Your task to perform on an android device: empty trash in google photos Image 0: 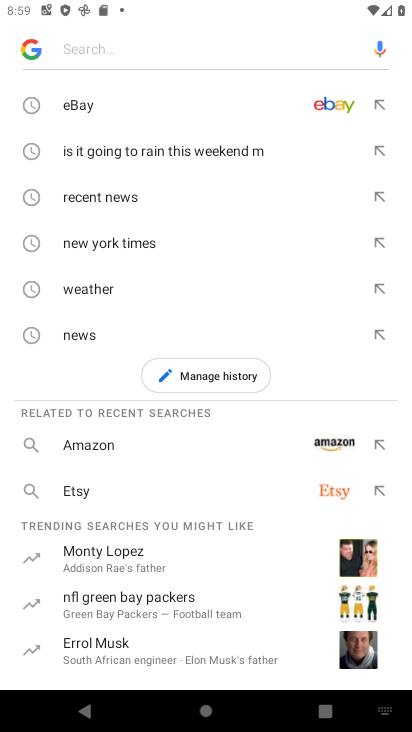
Step 0: press home button
Your task to perform on an android device: empty trash in google photos Image 1: 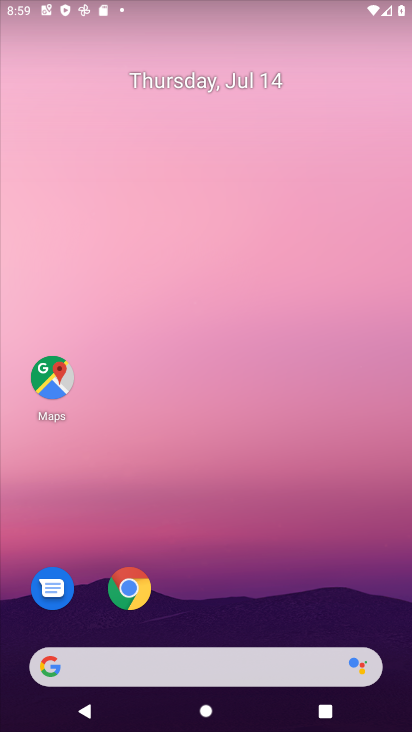
Step 1: drag from (209, 615) to (221, 82)
Your task to perform on an android device: empty trash in google photos Image 2: 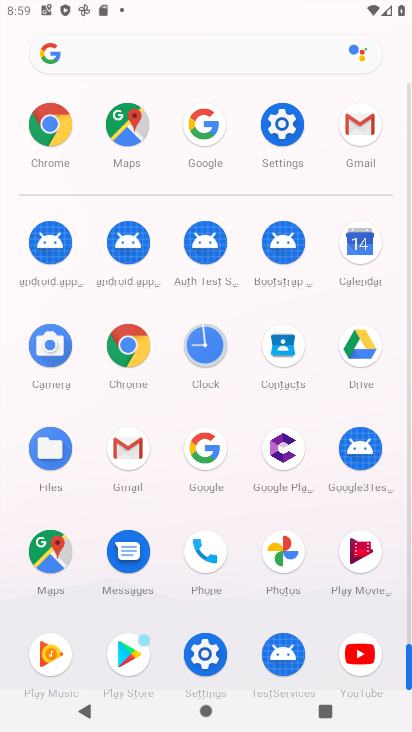
Step 2: click (291, 551)
Your task to perform on an android device: empty trash in google photos Image 3: 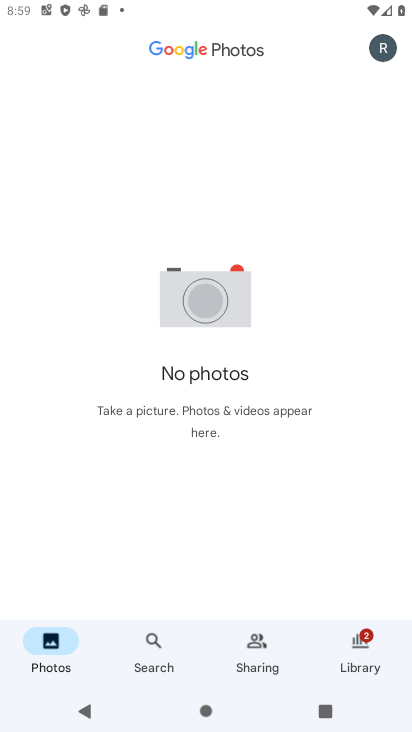
Step 3: click (381, 48)
Your task to perform on an android device: empty trash in google photos Image 4: 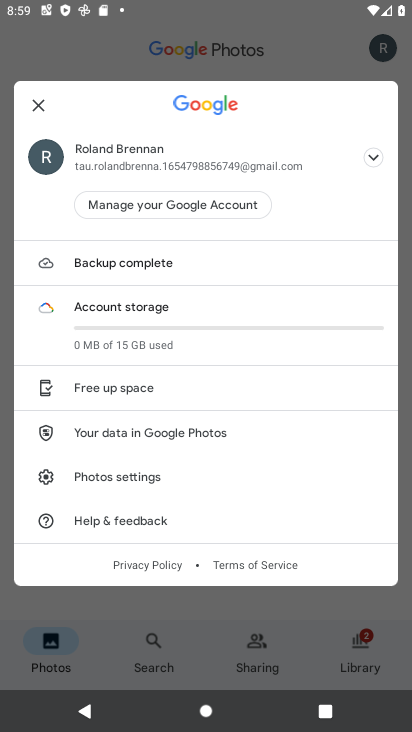
Step 4: click (276, 54)
Your task to perform on an android device: empty trash in google photos Image 5: 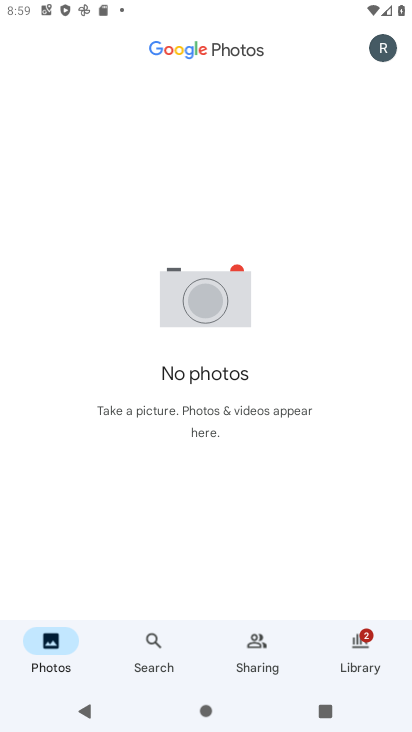
Step 5: click (368, 656)
Your task to perform on an android device: empty trash in google photos Image 6: 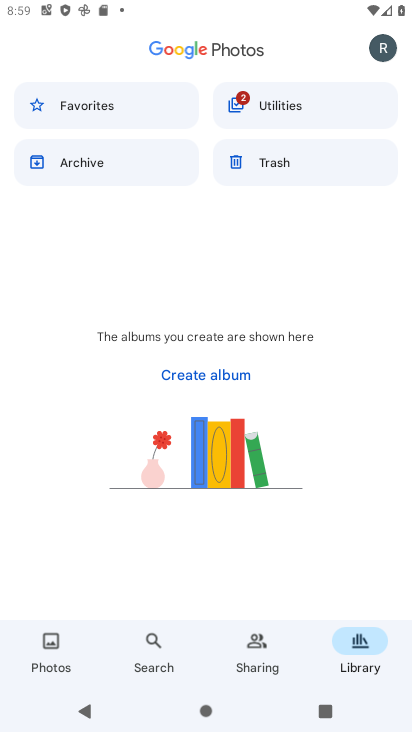
Step 6: click (289, 169)
Your task to perform on an android device: empty trash in google photos Image 7: 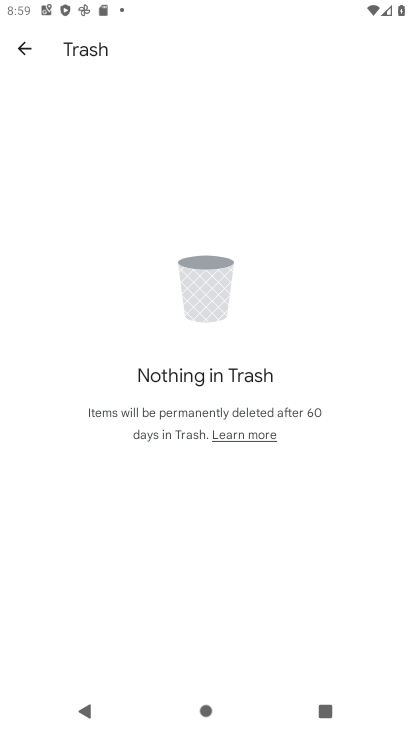
Step 7: task complete